Your task to perform on an android device: turn off translation in the chrome app Image 0: 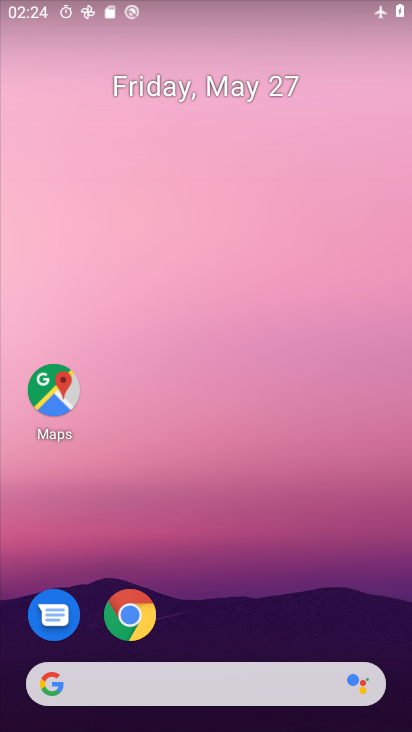
Step 0: drag from (374, 631) to (369, 224)
Your task to perform on an android device: turn off translation in the chrome app Image 1: 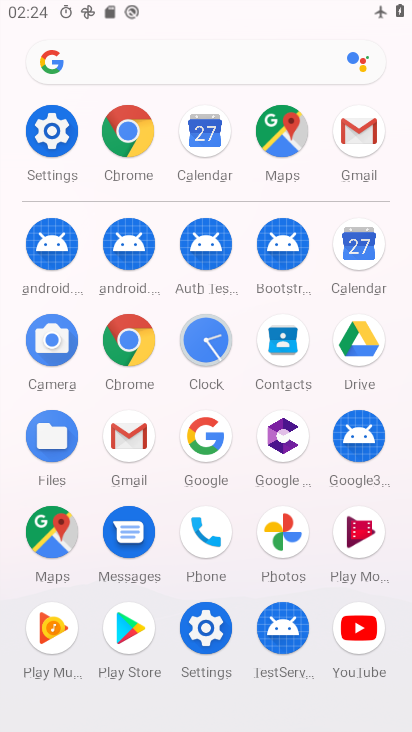
Step 1: click (128, 351)
Your task to perform on an android device: turn off translation in the chrome app Image 2: 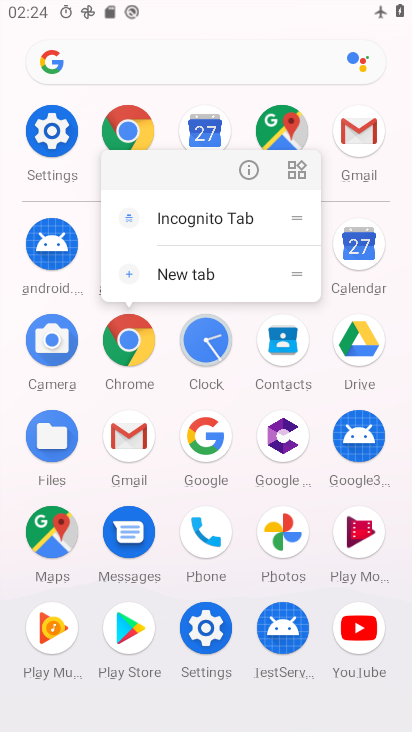
Step 2: click (128, 351)
Your task to perform on an android device: turn off translation in the chrome app Image 3: 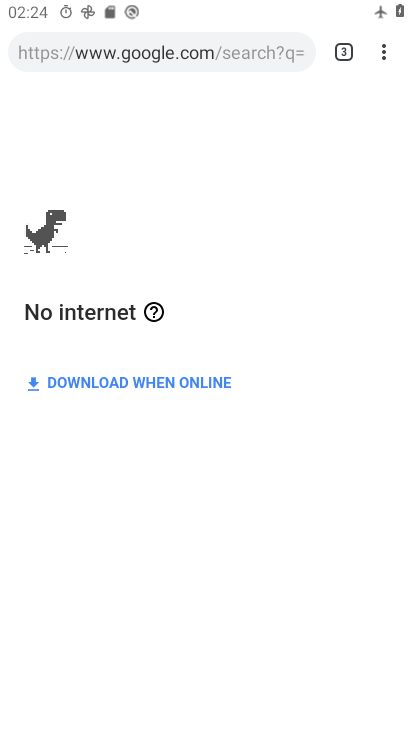
Step 3: click (383, 55)
Your task to perform on an android device: turn off translation in the chrome app Image 4: 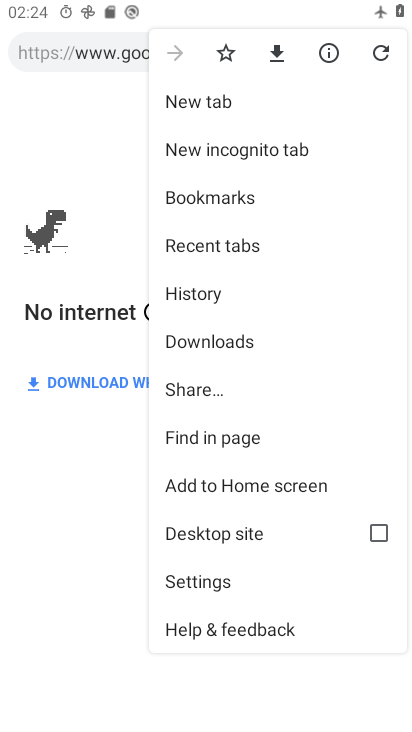
Step 4: click (249, 586)
Your task to perform on an android device: turn off translation in the chrome app Image 5: 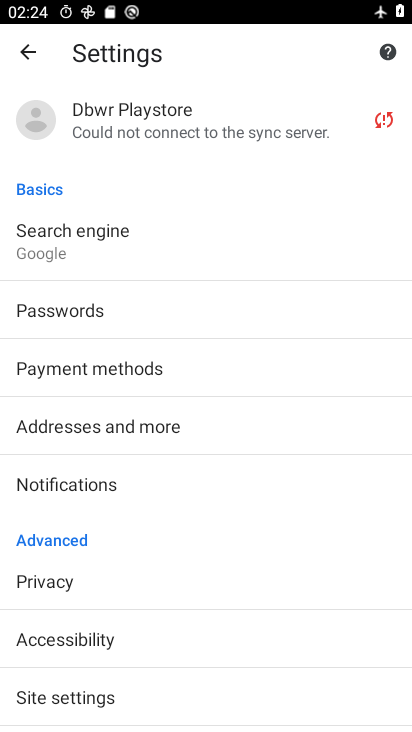
Step 5: drag from (252, 602) to (257, 518)
Your task to perform on an android device: turn off translation in the chrome app Image 6: 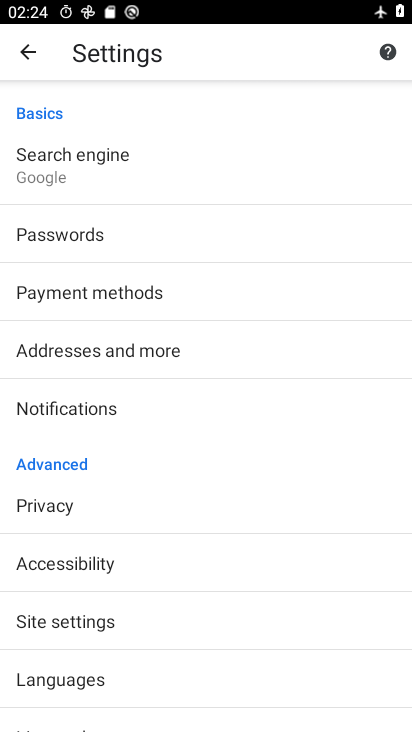
Step 6: drag from (240, 625) to (247, 544)
Your task to perform on an android device: turn off translation in the chrome app Image 7: 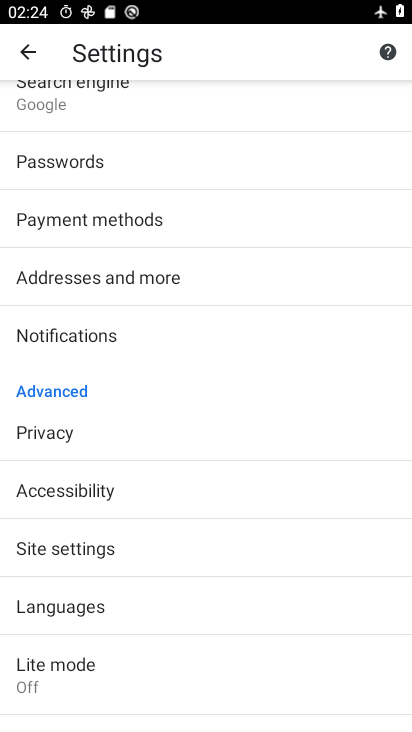
Step 7: drag from (247, 658) to (257, 574)
Your task to perform on an android device: turn off translation in the chrome app Image 8: 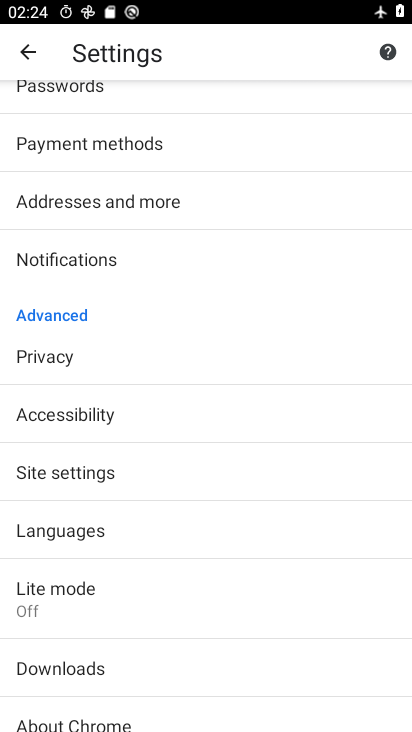
Step 8: drag from (260, 662) to (268, 578)
Your task to perform on an android device: turn off translation in the chrome app Image 9: 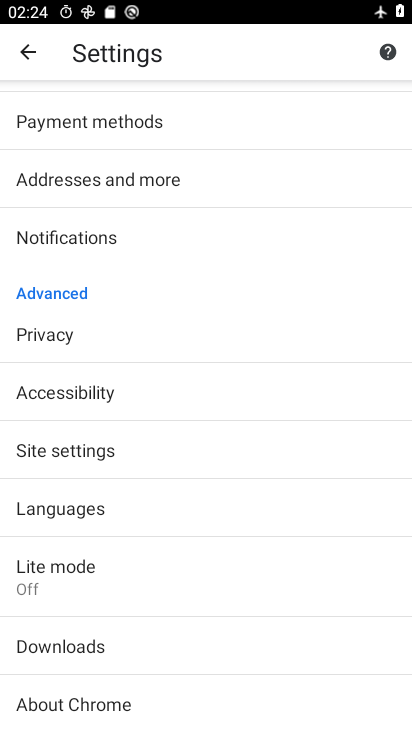
Step 9: click (170, 514)
Your task to perform on an android device: turn off translation in the chrome app Image 10: 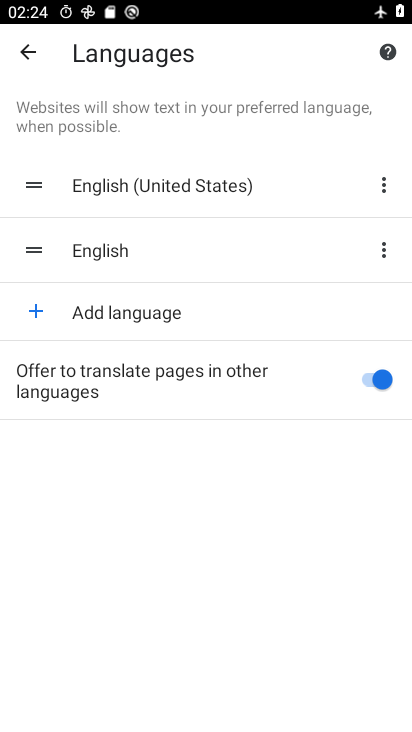
Step 10: click (386, 386)
Your task to perform on an android device: turn off translation in the chrome app Image 11: 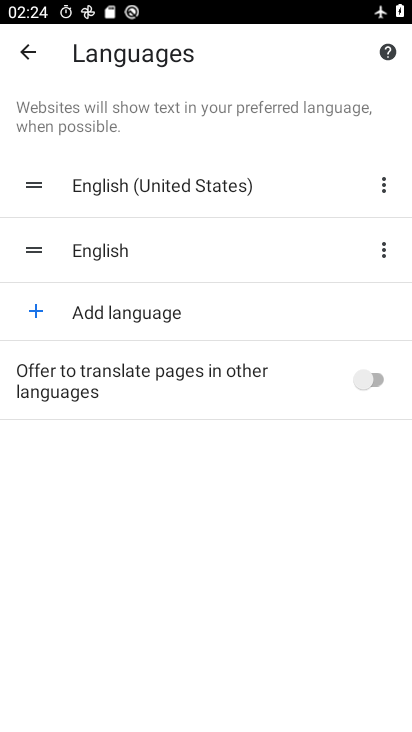
Step 11: task complete